Your task to perform on an android device: Turn on the flashlight Image 0: 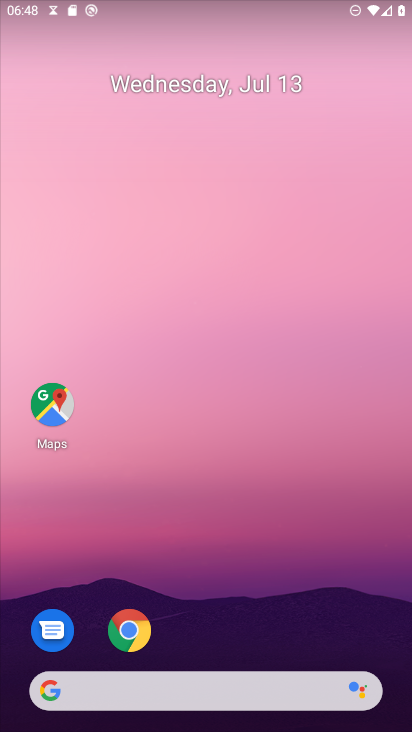
Step 0: drag from (246, 0) to (295, 702)
Your task to perform on an android device: Turn on the flashlight Image 1: 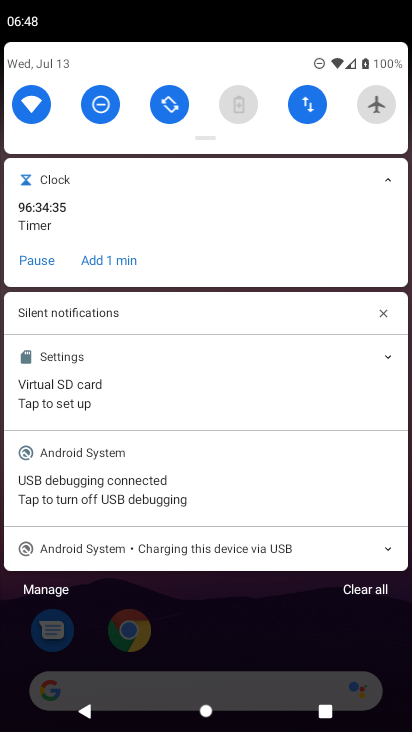
Step 1: task complete